Your task to perform on an android device: Show me popular games on the Play Store Image 0: 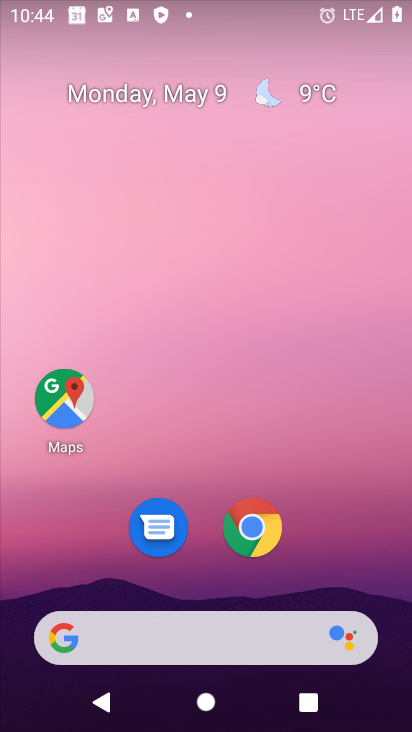
Step 0: drag from (393, 638) to (389, 95)
Your task to perform on an android device: Show me popular games on the Play Store Image 1: 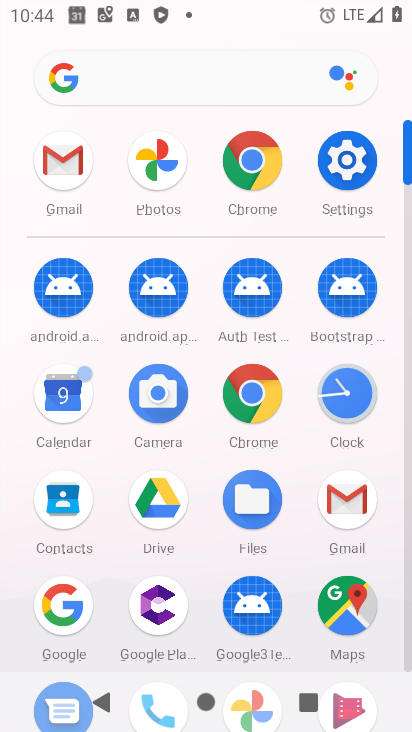
Step 1: click (408, 658)
Your task to perform on an android device: Show me popular games on the Play Store Image 2: 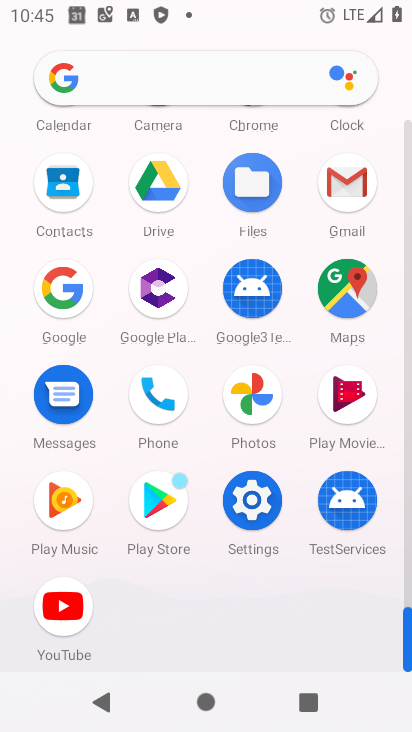
Step 2: click (158, 495)
Your task to perform on an android device: Show me popular games on the Play Store Image 3: 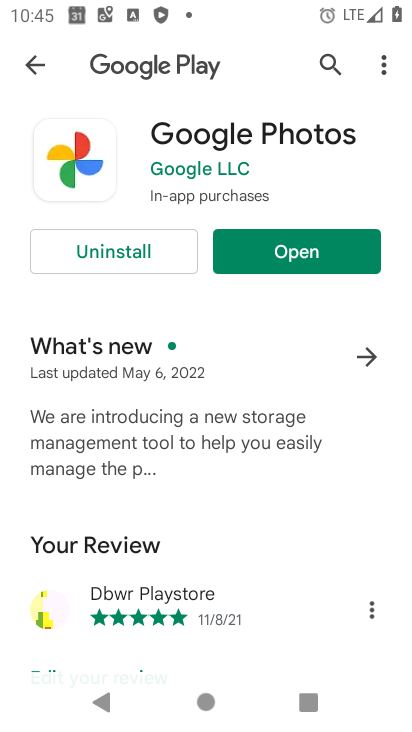
Step 3: press back button
Your task to perform on an android device: Show me popular games on the Play Store Image 4: 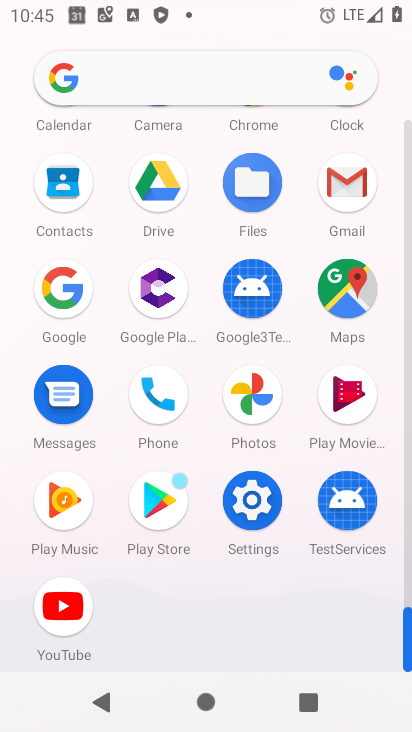
Step 4: click (163, 498)
Your task to perform on an android device: Show me popular games on the Play Store Image 5: 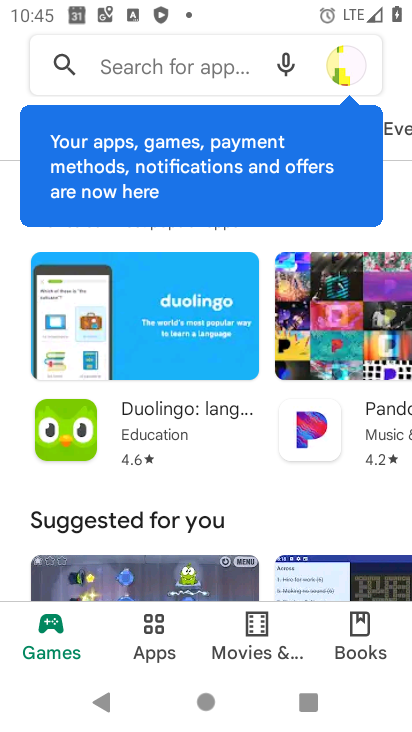
Step 5: drag from (230, 521) to (242, 60)
Your task to perform on an android device: Show me popular games on the Play Store Image 6: 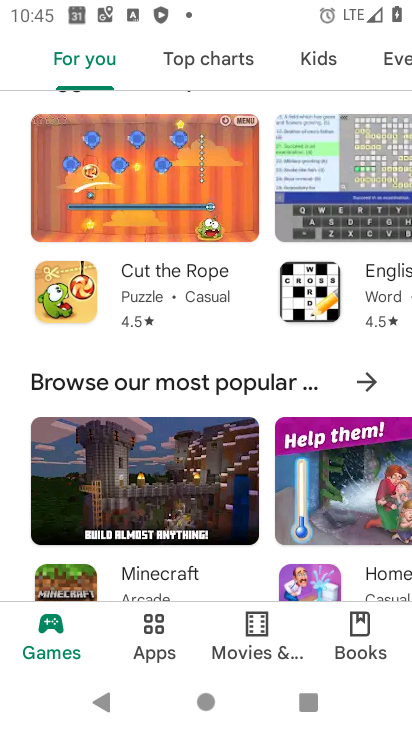
Step 6: drag from (264, 423) to (261, 89)
Your task to perform on an android device: Show me popular games on the Play Store Image 7: 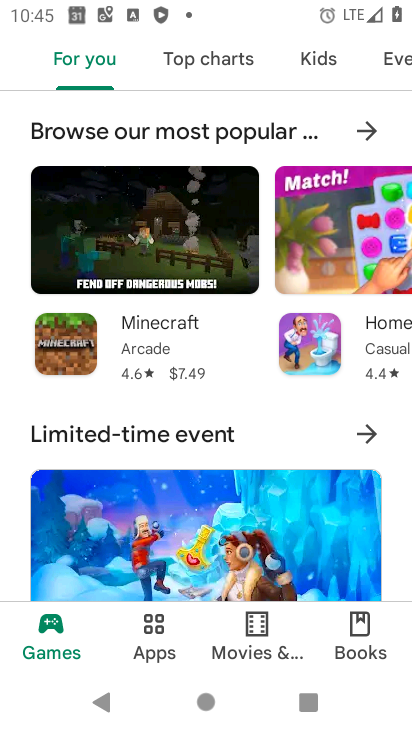
Step 7: drag from (258, 473) to (257, 106)
Your task to perform on an android device: Show me popular games on the Play Store Image 8: 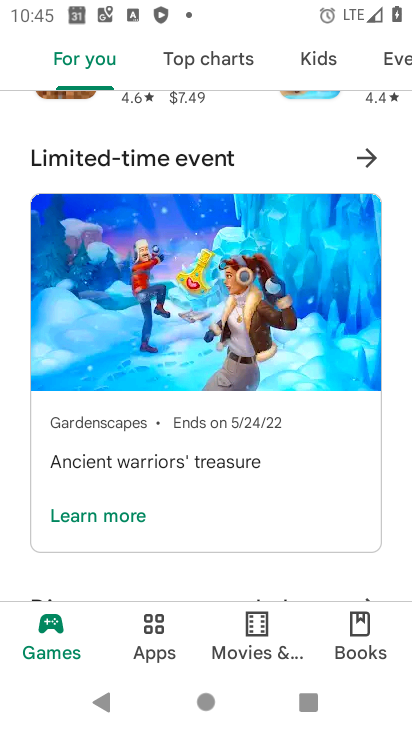
Step 8: drag from (267, 530) to (260, 83)
Your task to perform on an android device: Show me popular games on the Play Store Image 9: 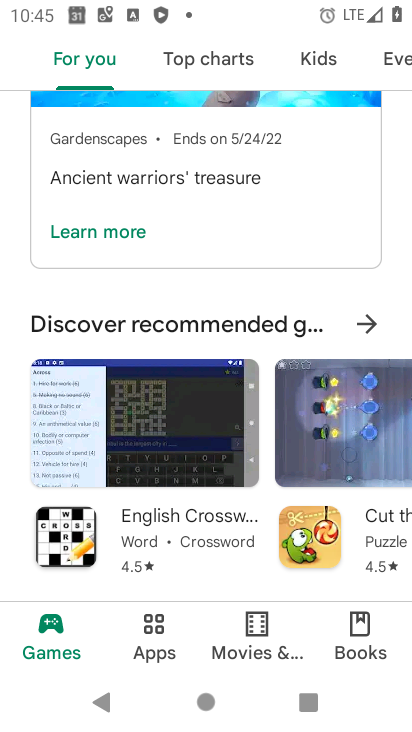
Step 9: drag from (267, 445) to (259, 105)
Your task to perform on an android device: Show me popular games on the Play Store Image 10: 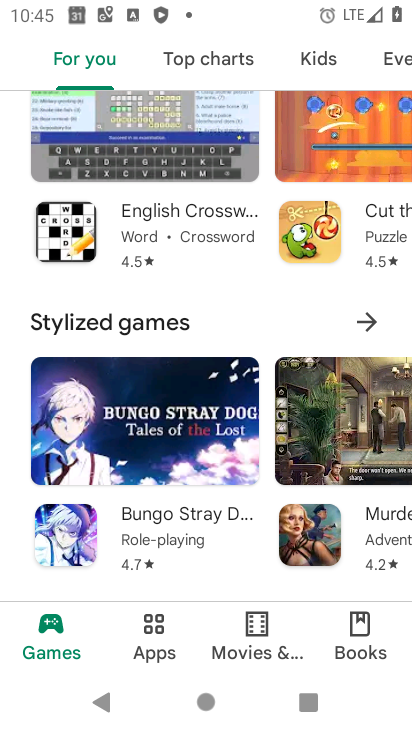
Step 10: drag from (264, 492) to (259, 98)
Your task to perform on an android device: Show me popular games on the Play Store Image 11: 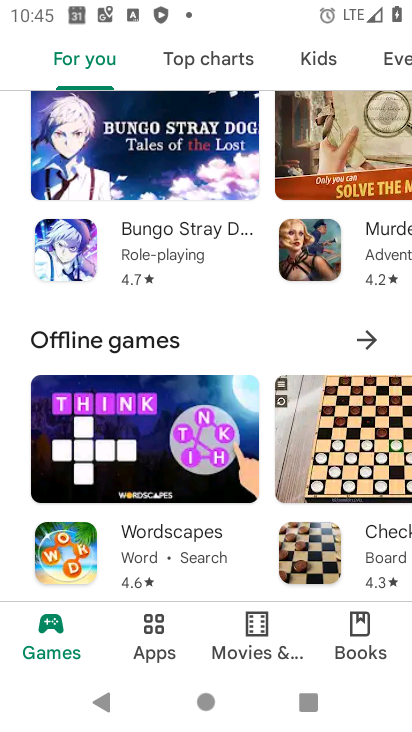
Step 11: drag from (261, 505) to (275, 174)
Your task to perform on an android device: Show me popular games on the Play Store Image 12: 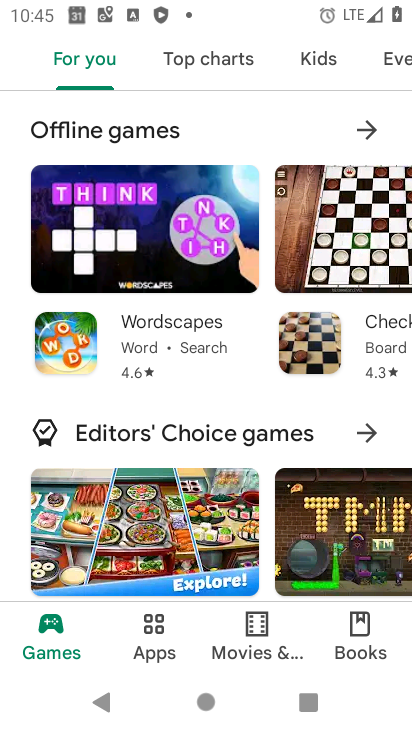
Step 12: drag from (262, 468) to (262, 140)
Your task to perform on an android device: Show me popular games on the Play Store Image 13: 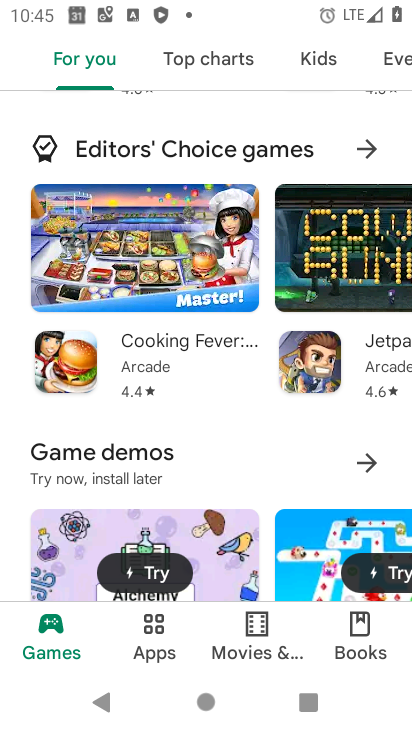
Step 13: drag from (341, 319) to (1, 298)
Your task to perform on an android device: Show me popular games on the Play Store Image 14: 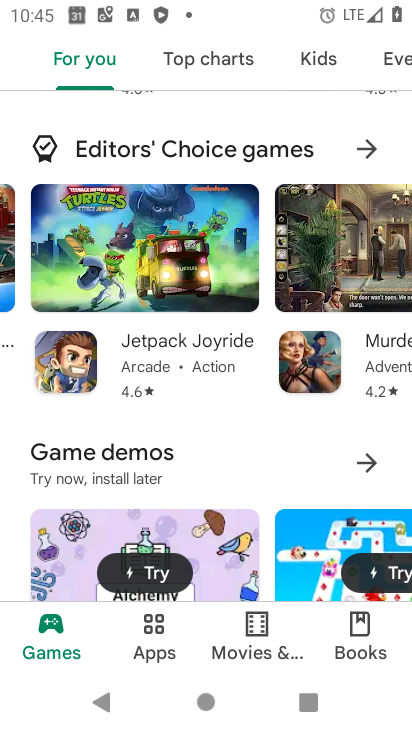
Step 14: click (318, 53)
Your task to perform on an android device: Show me popular games on the Play Store Image 15: 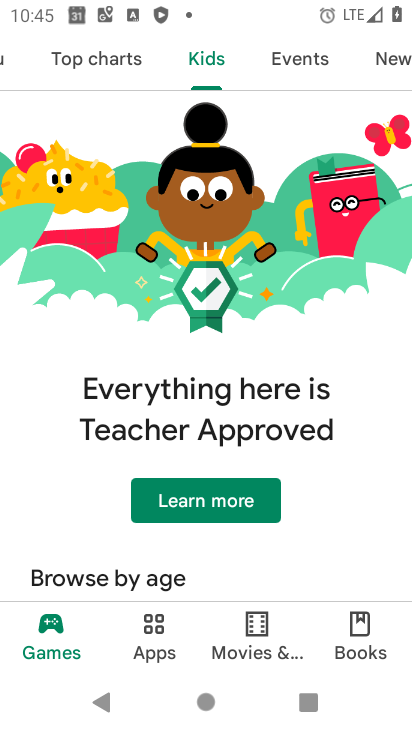
Step 15: task complete